Your task to perform on an android device: turn on wifi Image 0: 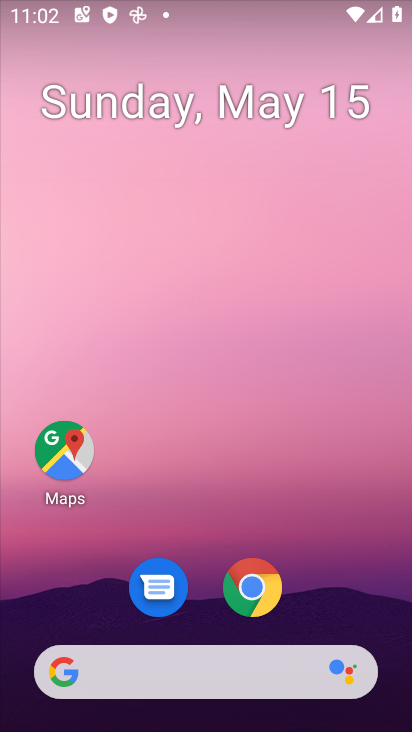
Step 0: drag from (383, 613) to (269, 60)
Your task to perform on an android device: turn on wifi Image 1: 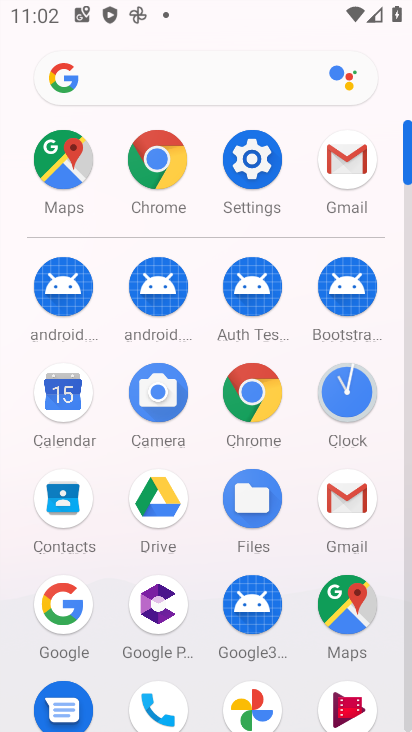
Step 1: task complete